Your task to perform on an android device: Open notification settings Image 0: 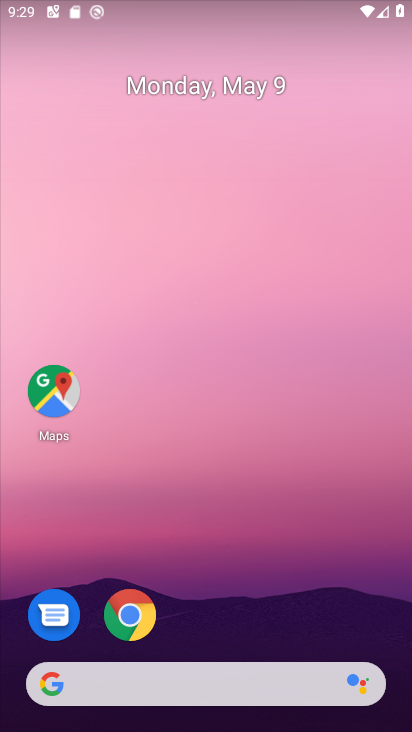
Step 0: drag from (305, 700) to (263, 226)
Your task to perform on an android device: Open notification settings Image 1: 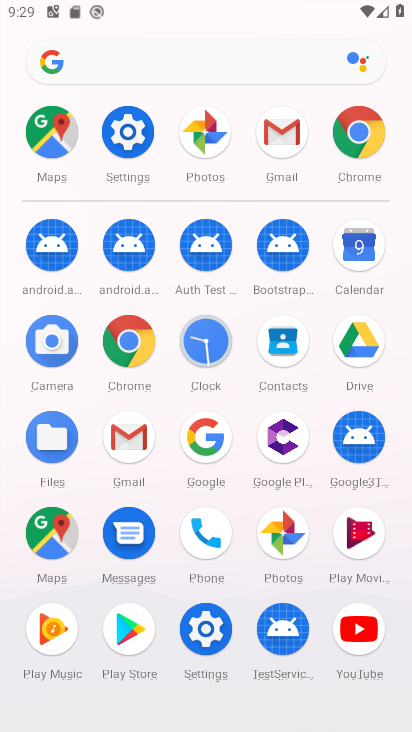
Step 1: click (127, 134)
Your task to perform on an android device: Open notification settings Image 2: 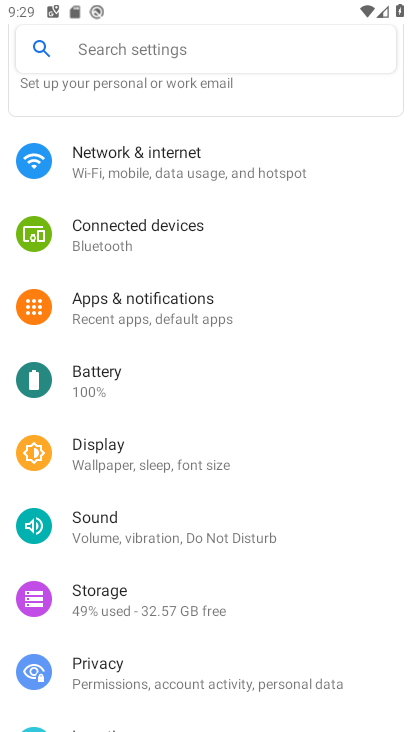
Step 2: click (158, 44)
Your task to perform on an android device: Open notification settings Image 3: 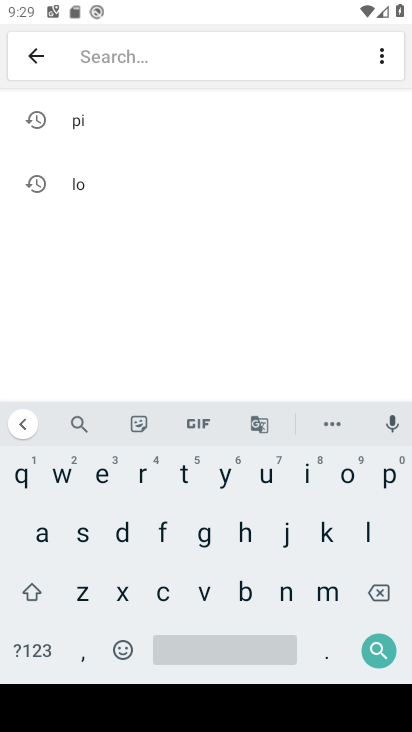
Step 3: click (281, 595)
Your task to perform on an android device: Open notification settings Image 4: 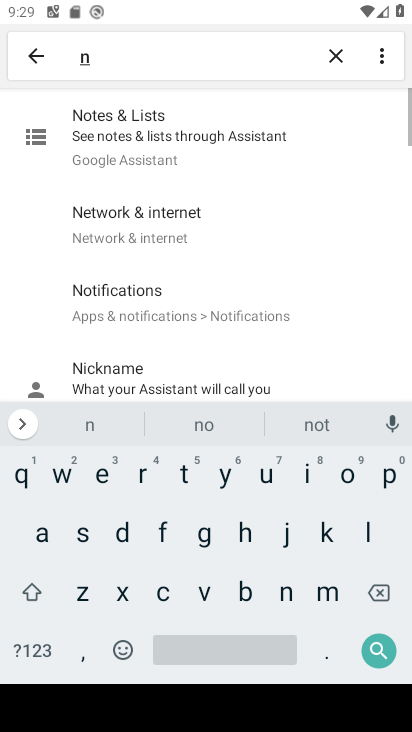
Step 4: click (349, 482)
Your task to perform on an android device: Open notification settings Image 5: 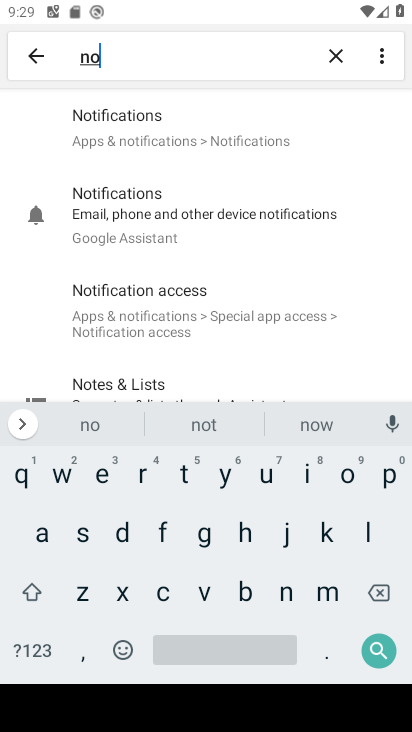
Step 5: click (145, 141)
Your task to perform on an android device: Open notification settings Image 6: 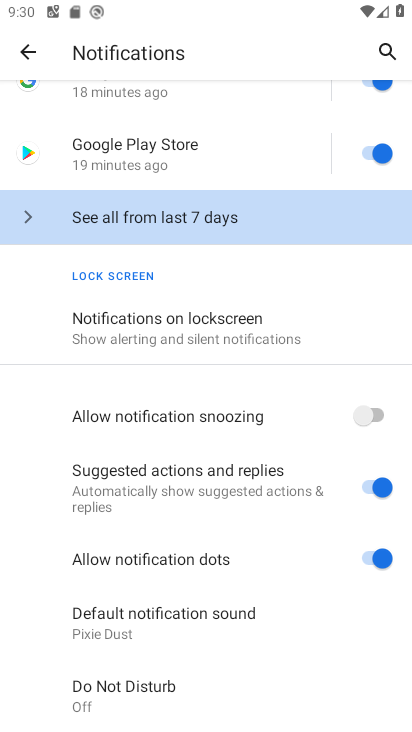
Step 6: click (129, 316)
Your task to perform on an android device: Open notification settings Image 7: 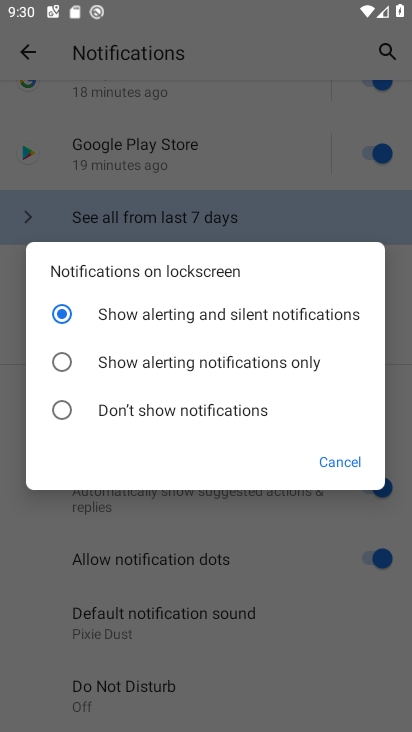
Step 7: task complete